Your task to perform on an android device: See recent photos Image 0: 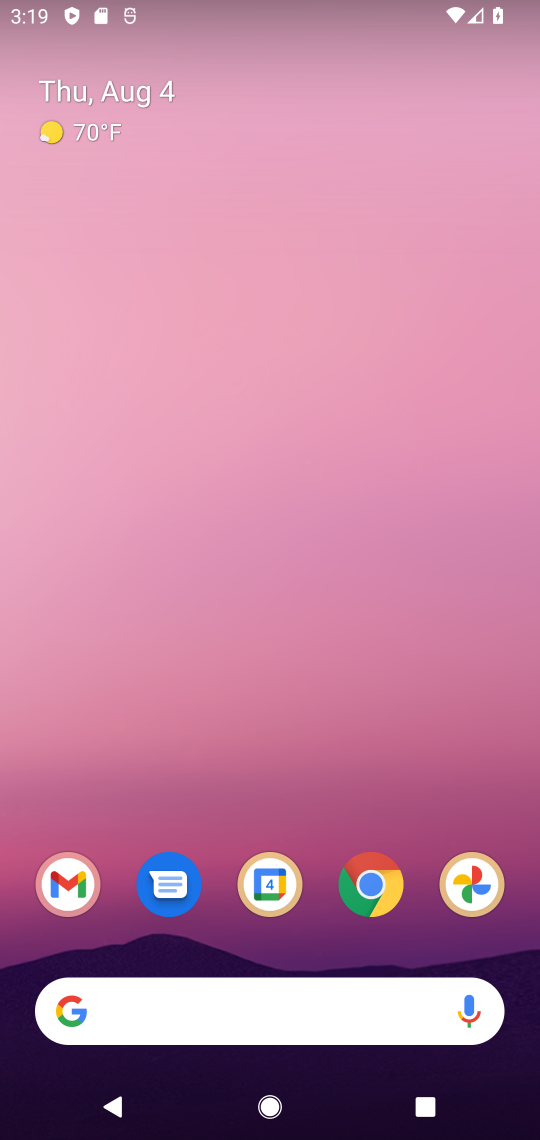
Step 0: drag from (271, 901) to (277, 134)
Your task to perform on an android device: See recent photos Image 1: 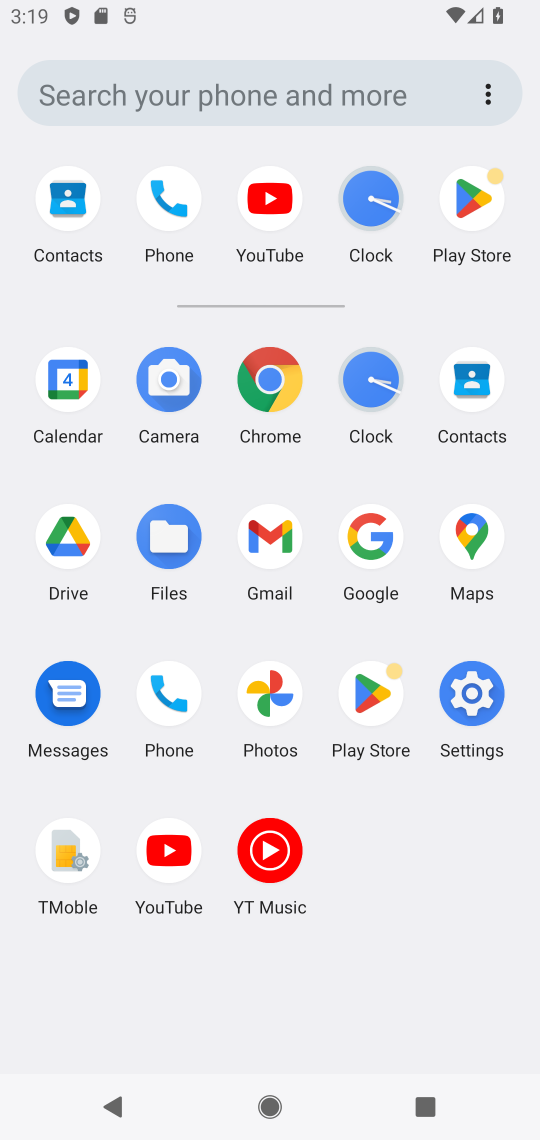
Step 1: click (268, 674)
Your task to perform on an android device: See recent photos Image 2: 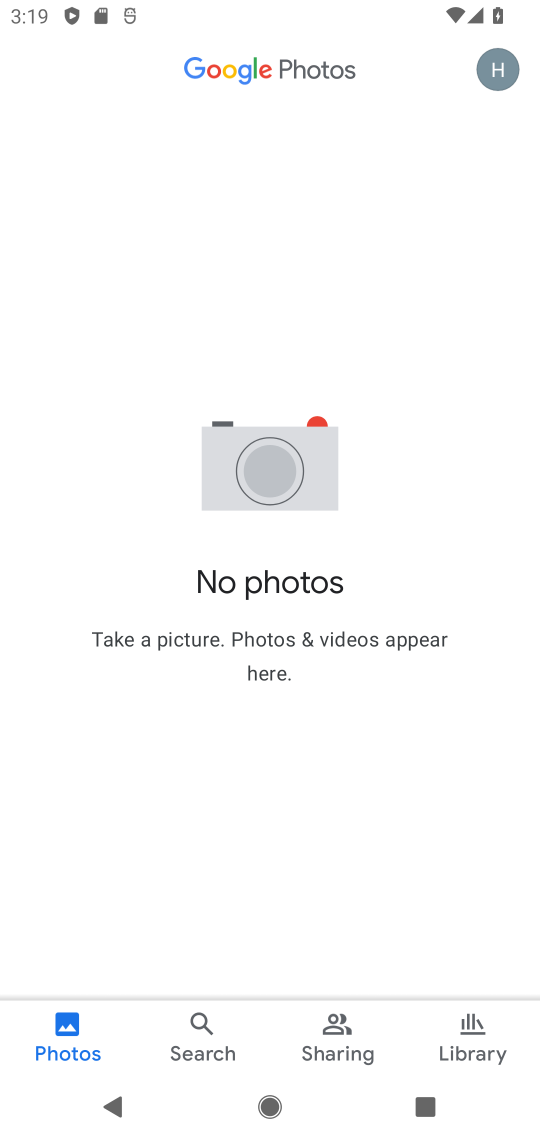
Step 2: task complete